Your task to perform on an android device: empty trash in google photos Image 0: 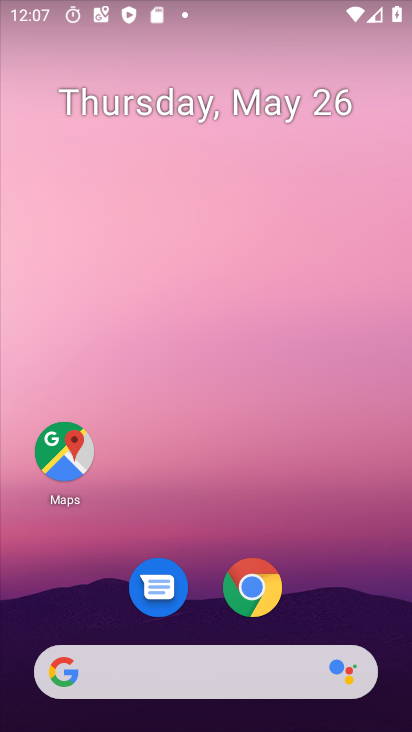
Step 0: press home button
Your task to perform on an android device: empty trash in google photos Image 1: 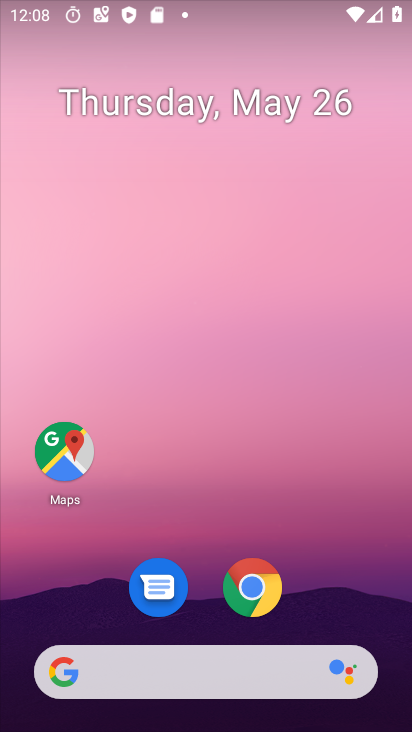
Step 1: drag from (294, 686) to (240, 0)
Your task to perform on an android device: empty trash in google photos Image 2: 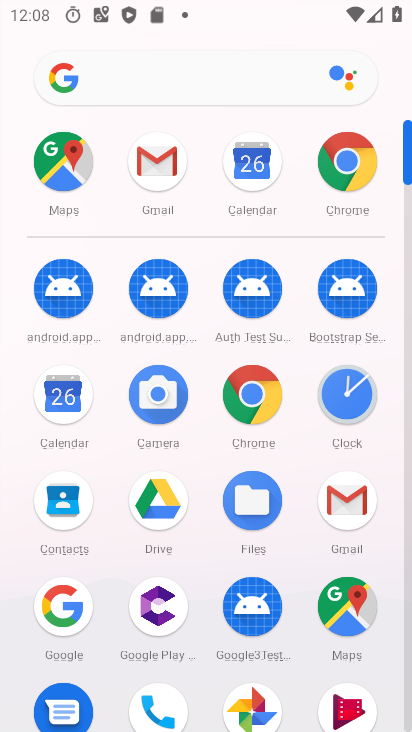
Step 2: click (255, 676)
Your task to perform on an android device: empty trash in google photos Image 3: 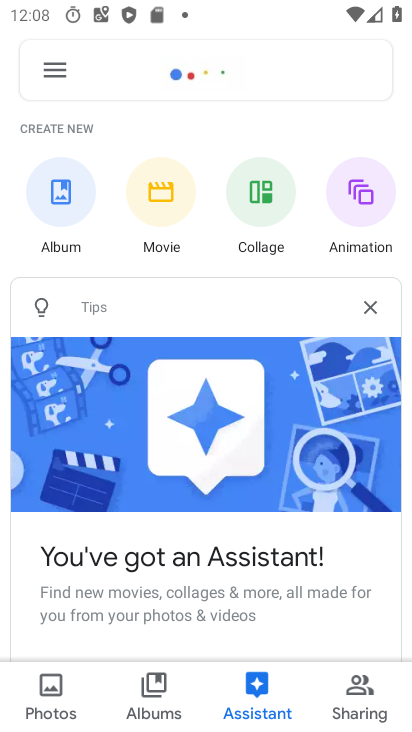
Step 3: click (35, 65)
Your task to perform on an android device: empty trash in google photos Image 4: 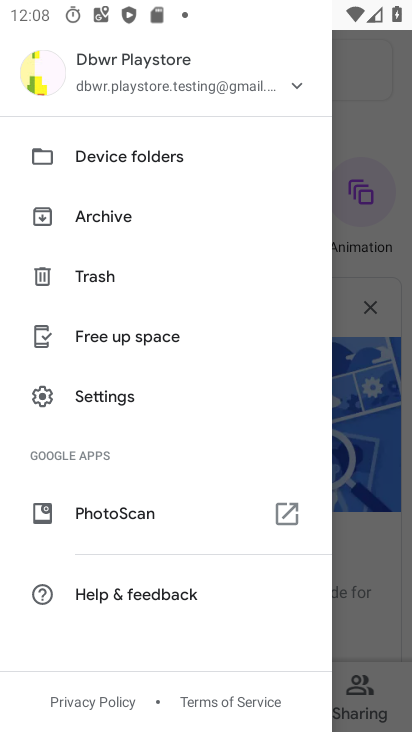
Step 4: click (85, 279)
Your task to perform on an android device: empty trash in google photos Image 5: 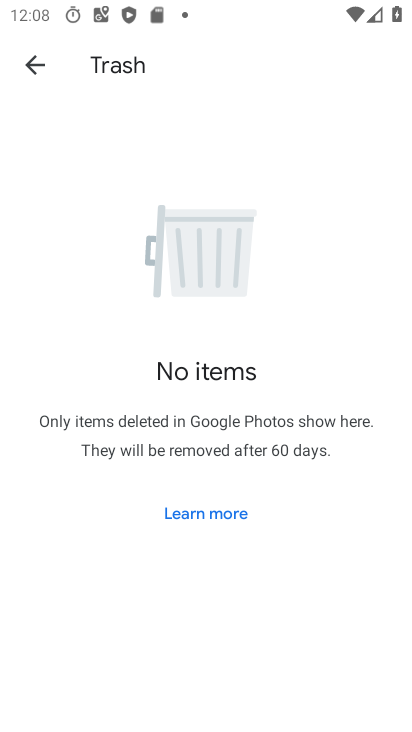
Step 5: task complete